Your task to perform on an android device: open app "Adobe Express: Graphic Design" Image 0: 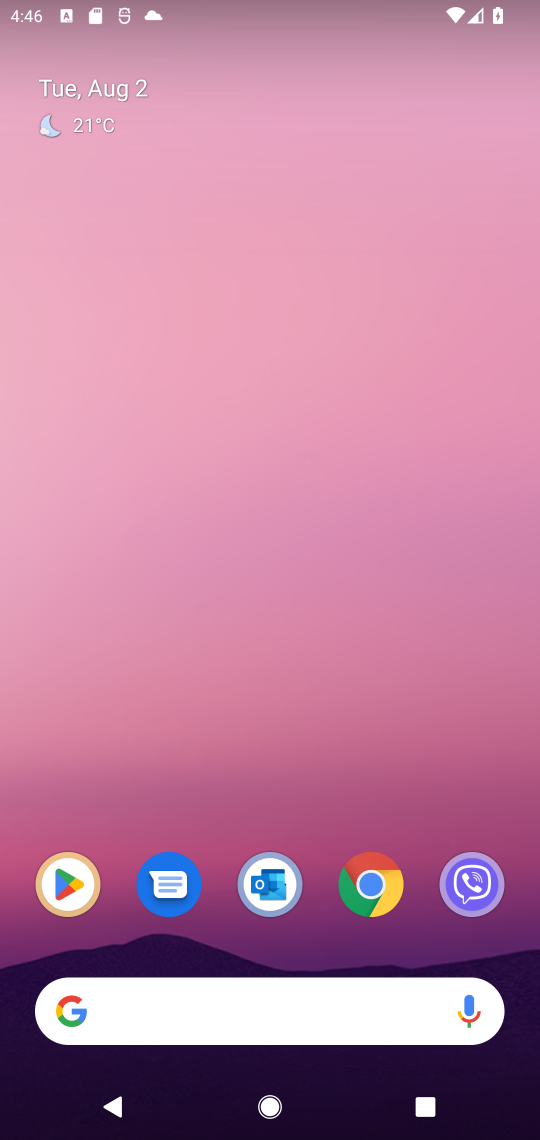
Step 0: click (64, 896)
Your task to perform on an android device: open app "Adobe Express: Graphic Design" Image 1: 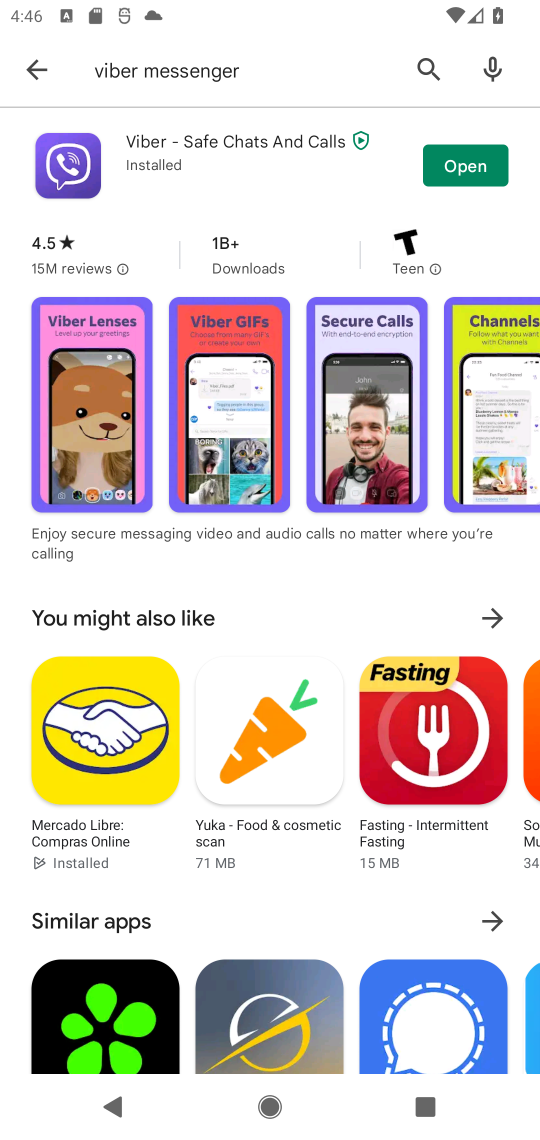
Step 1: click (40, 66)
Your task to perform on an android device: open app "Adobe Express: Graphic Design" Image 2: 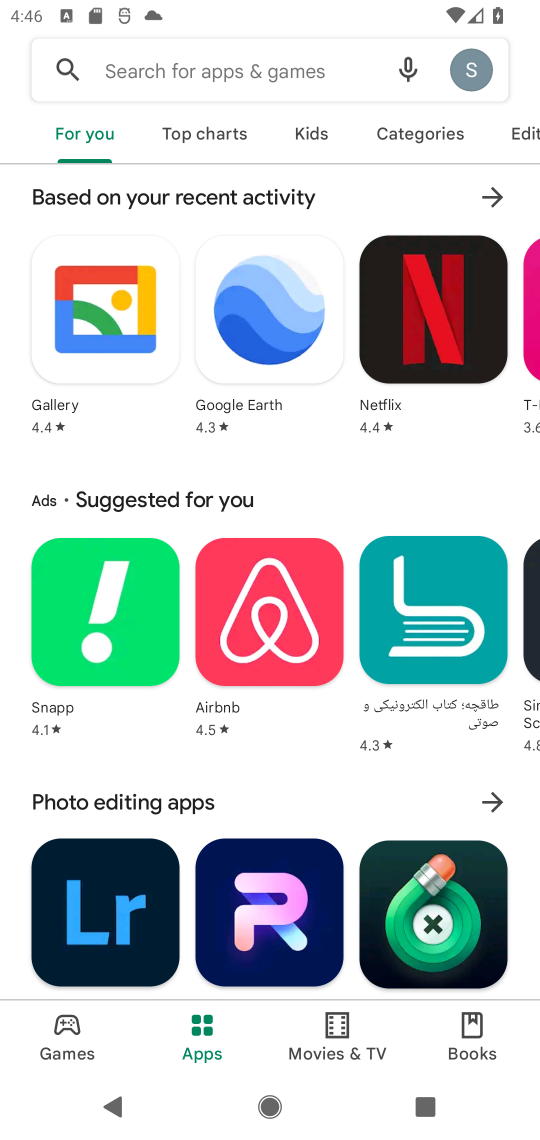
Step 2: click (195, 66)
Your task to perform on an android device: open app "Adobe Express: Graphic Design" Image 3: 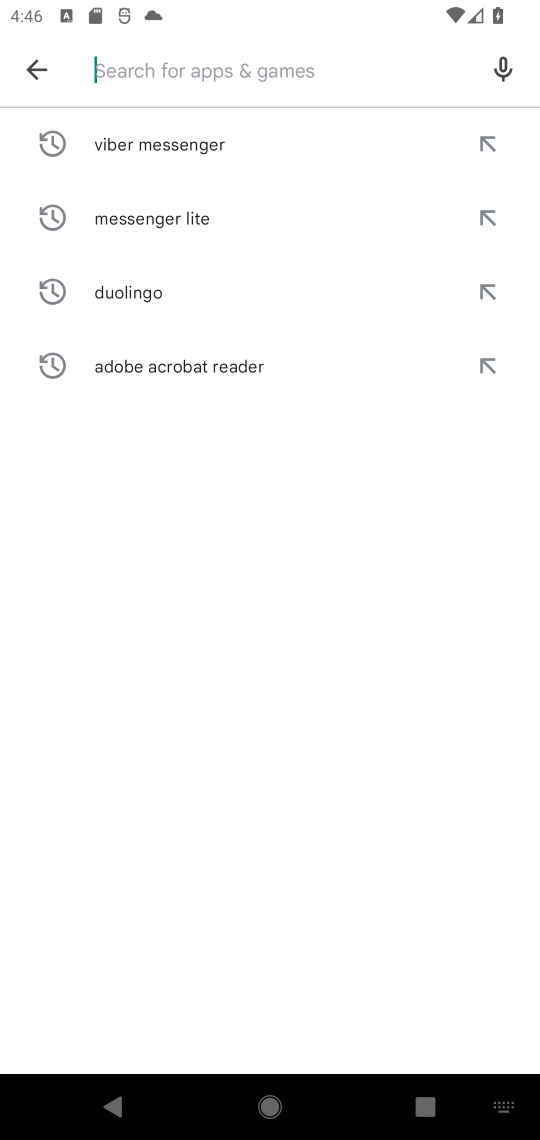
Step 3: type "Adobe Express: Graphic Design"
Your task to perform on an android device: open app "Adobe Express: Graphic Design" Image 4: 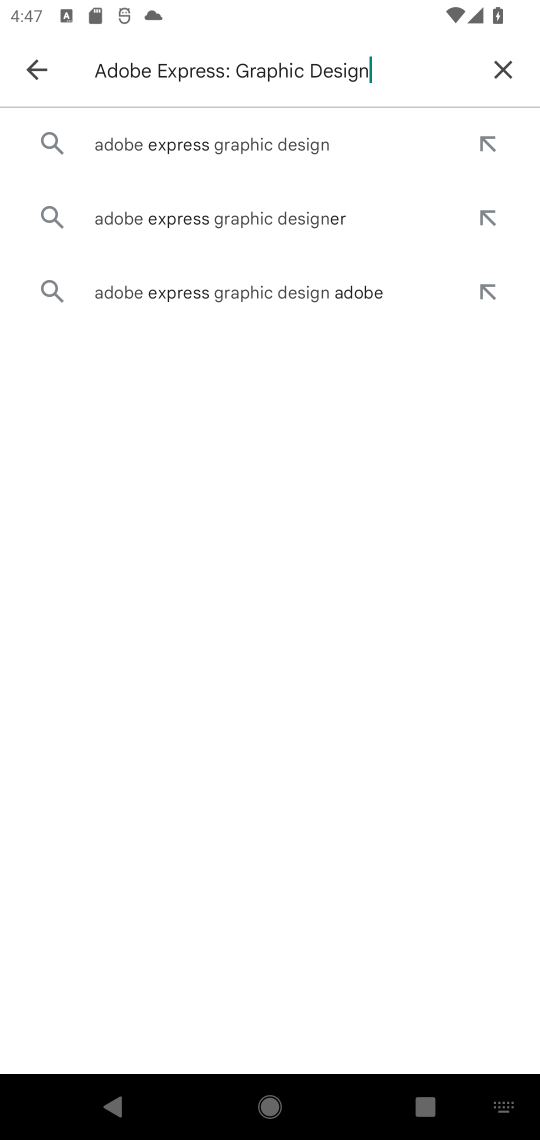
Step 4: click (292, 151)
Your task to perform on an android device: open app "Adobe Express: Graphic Design" Image 5: 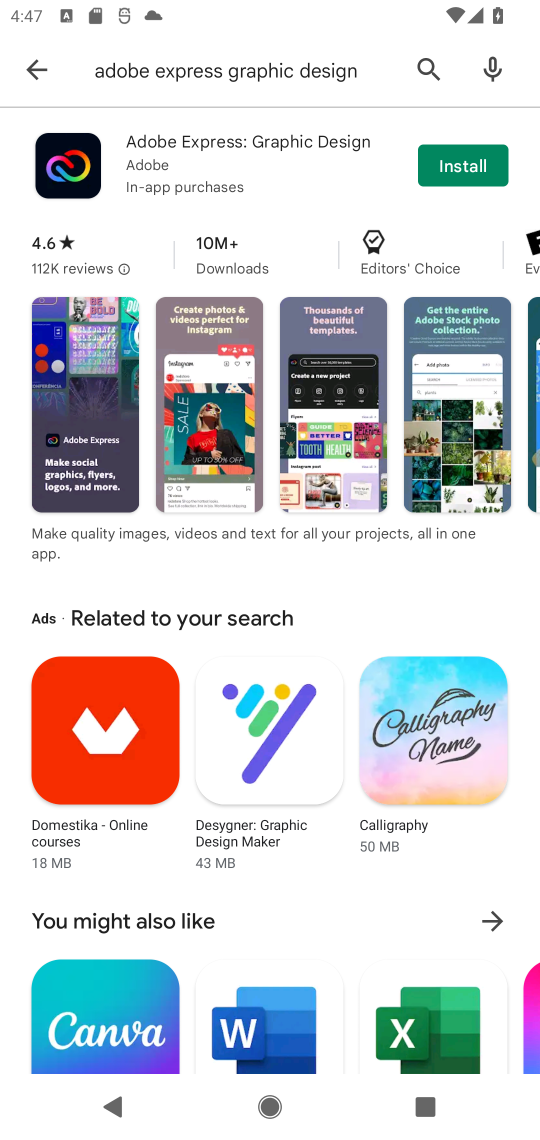
Step 5: click (457, 153)
Your task to perform on an android device: open app "Adobe Express: Graphic Design" Image 6: 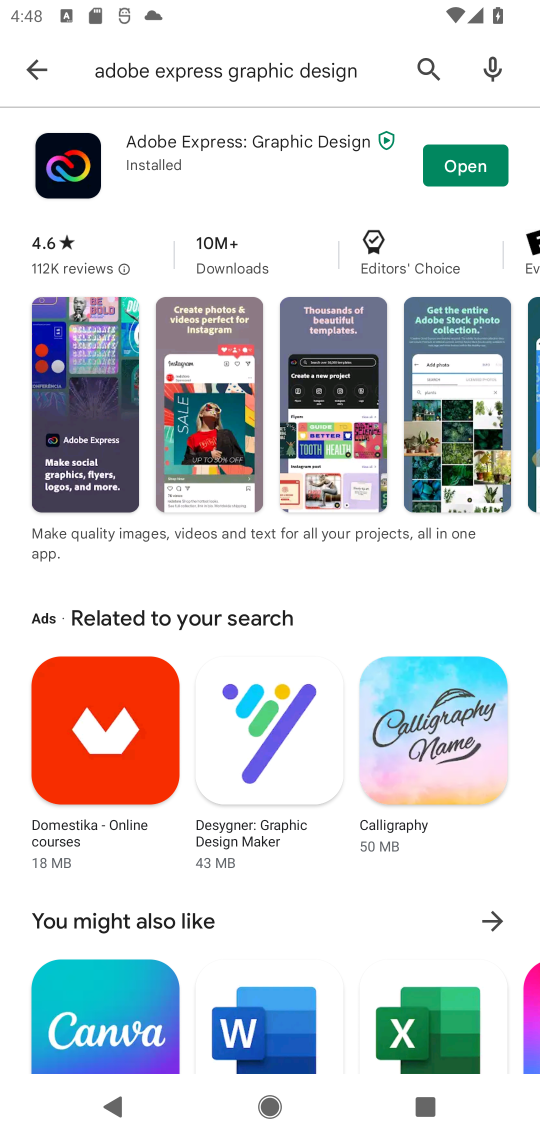
Step 6: click (457, 153)
Your task to perform on an android device: open app "Adobe Express: Graphic Design" Image 7: 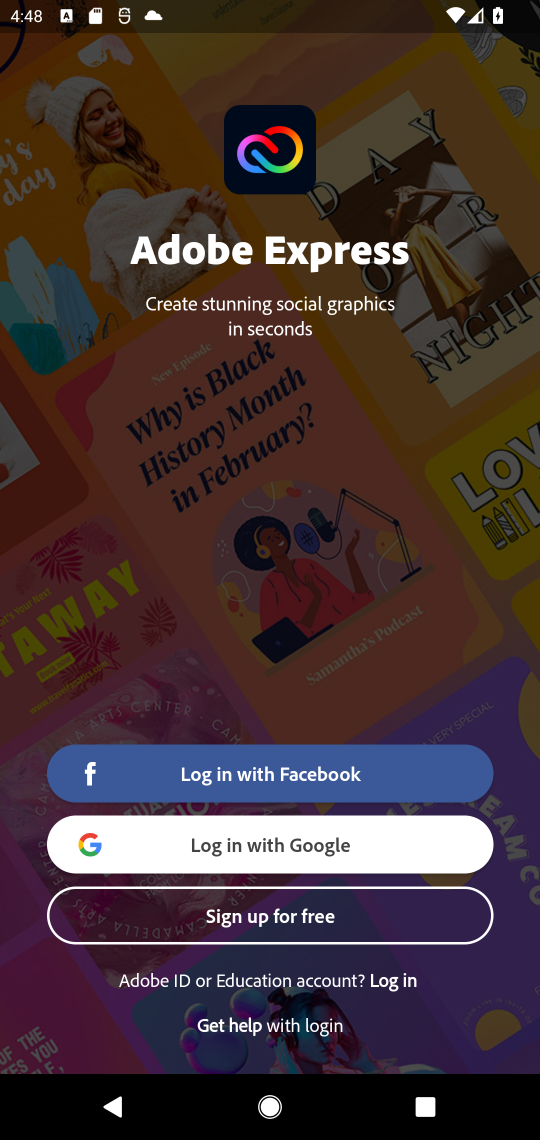
Step 7: task complete